Your task to perform on an android device: change notifications settings Image 0: 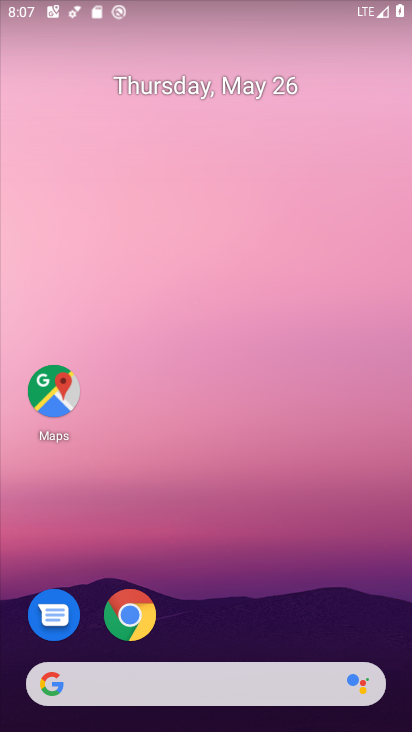
Step 0: drag from (260, 499) to (301, 95)
Your task to perform on an android device: change notifications settings Image 1: 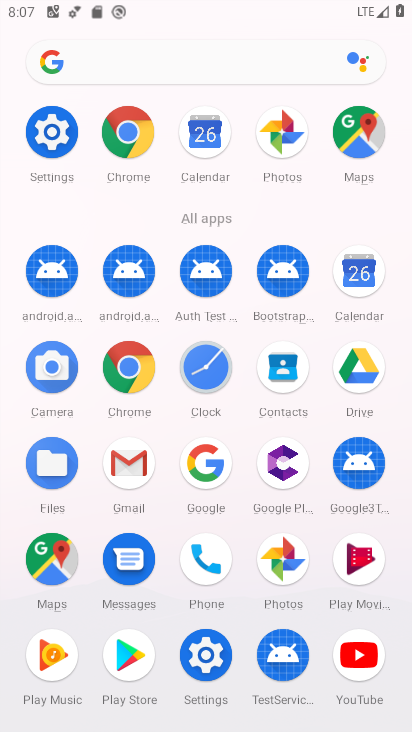
Step 1: click (48, 128)
Your task to perform on an android device: change notifications settings Image 2: 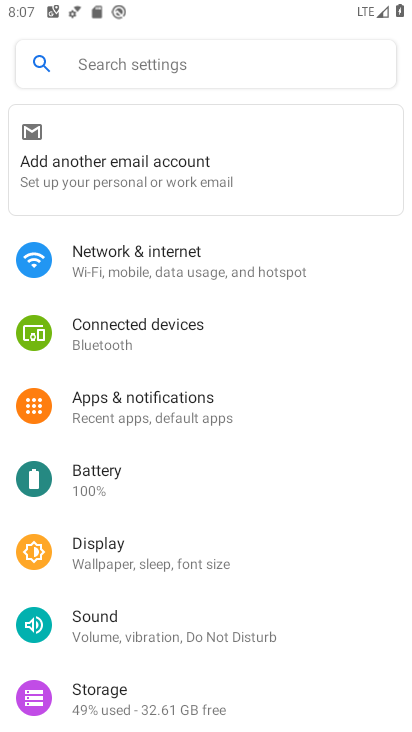
Step 2: click (141, 394)
Your task to perform on an android device: change notifications settings Image 3: 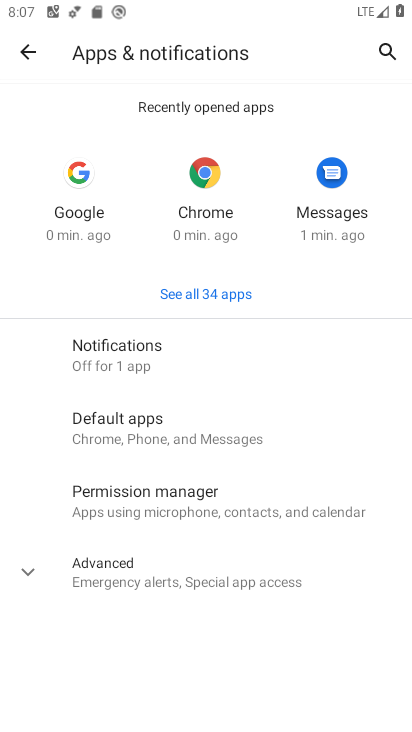
Step 3: click (147, 335)
Your task to perform on an android device: change notifications settings Image 4: 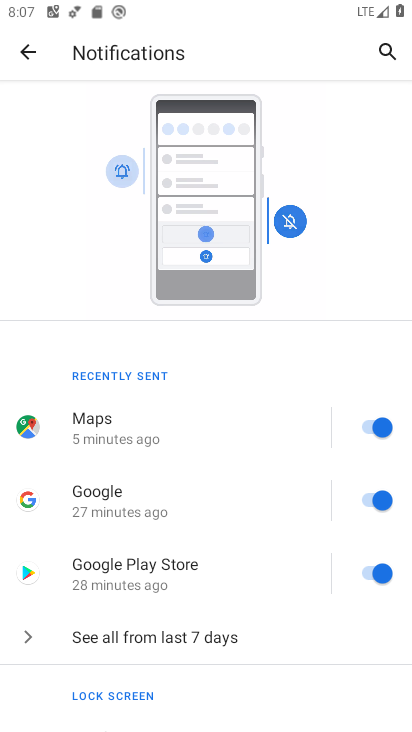
Step 4: drag from (187, 622) to (201, 438)
Your task to perform on an android device: change notifications settings Image 5: 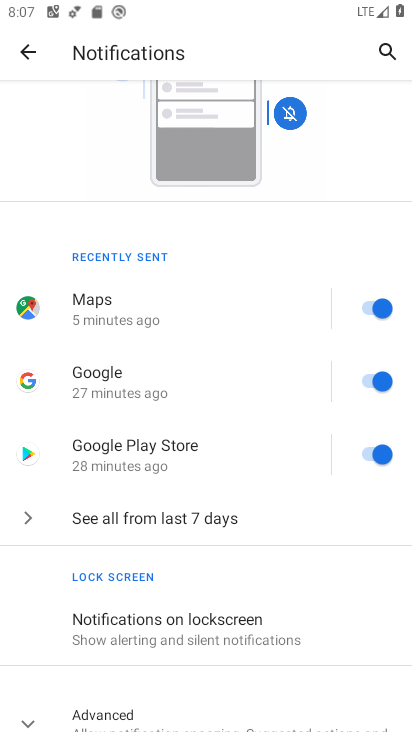
Step 5: click (193, 622)
Your task to perform on an android device: change notifications settings Image 6: 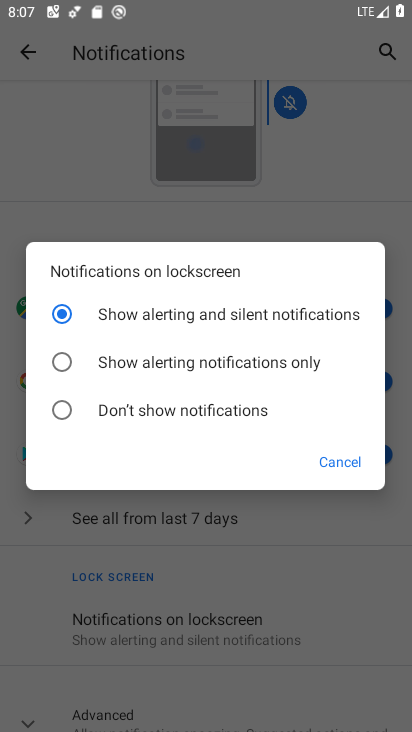
Step 6: click (348, 461)
Your task to perform on an android device: change notifications settings Image 7: 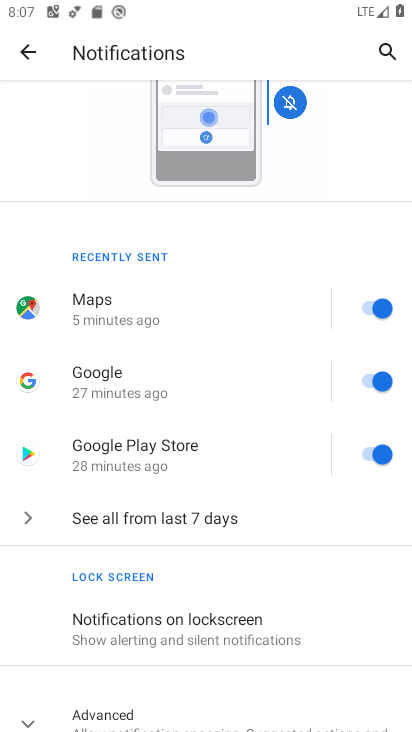
Step 7: click (239, 523)
Your task to perform on an android device: change notifications settings Image 8: 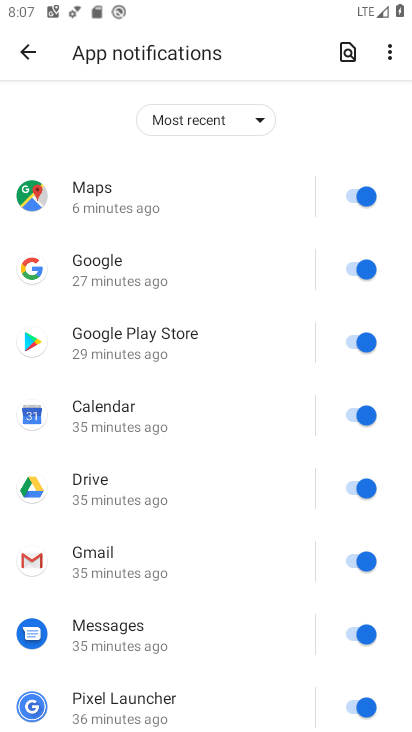
Step 8: drag from (184, 586) to (198, 517)
Your task to perform on an android device: change notifications settings Image 9: 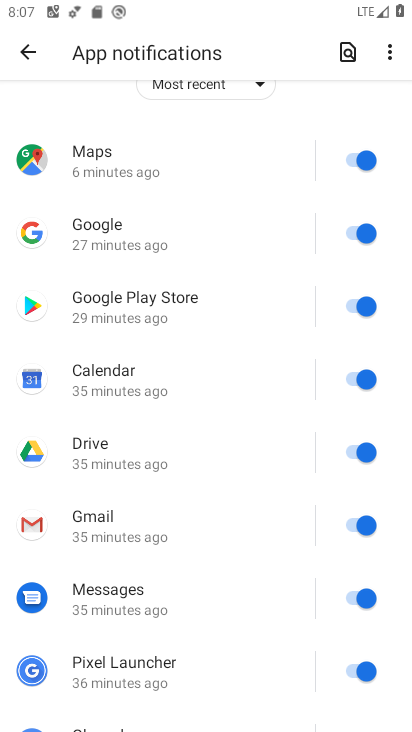
Step 9: click (347, 160)
Your task to perform on an android device: change notifications settings Image 10: 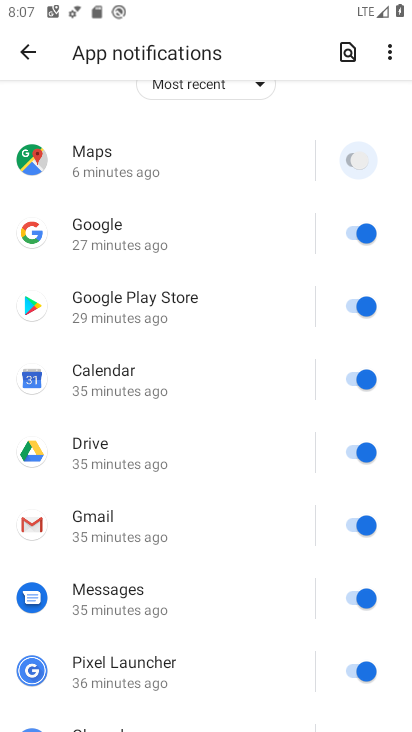
Step 10: click (356, 241)
Your task to perform on an android device: change notifications settings Image 11: 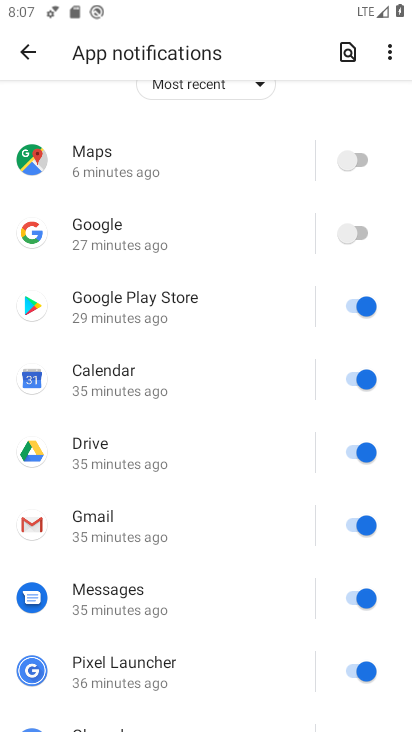
Step 11: click (355, 296)
Your task to perform on an android device: change notifications settings Image 12: 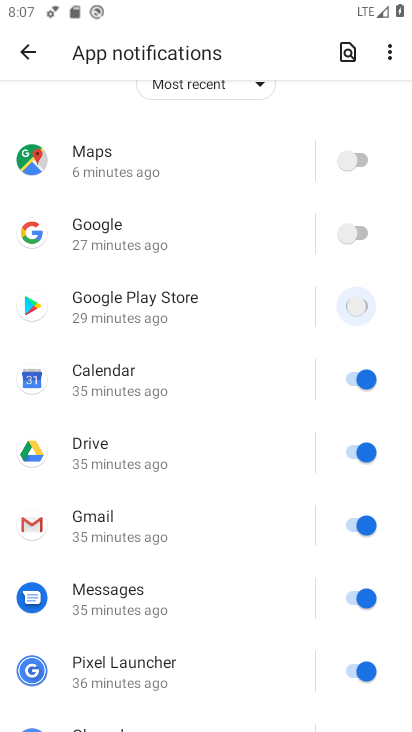
Step 12: click (357, 379)
Your task to perform on an android device: change notifications settings Image 13: 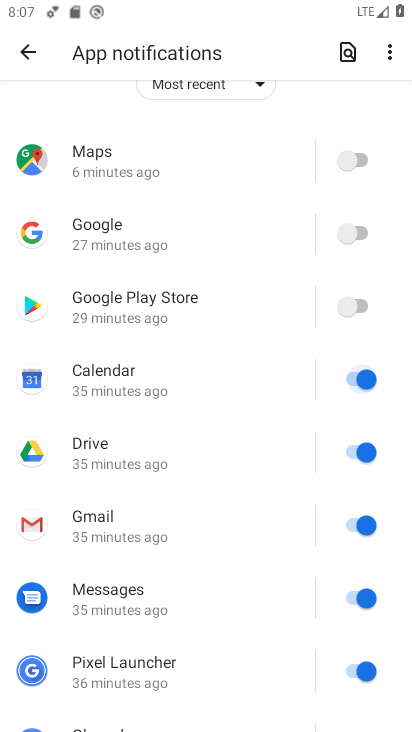
Step 13: click (357, 446)
Your task to perform on an android device: change notifications settings Image 14: 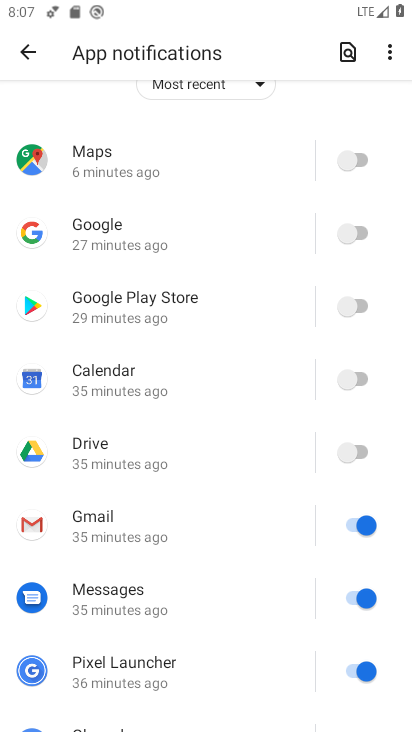
Step 14: click (347, 532)
Your task to perform on an android device: change notifications settings Image 15: 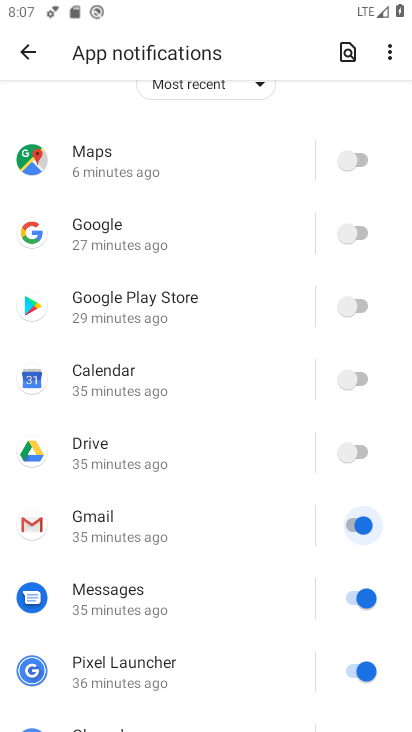
Step 15: click (359, 589)
Your task to perform on an android device: change notifications settings Image 16: 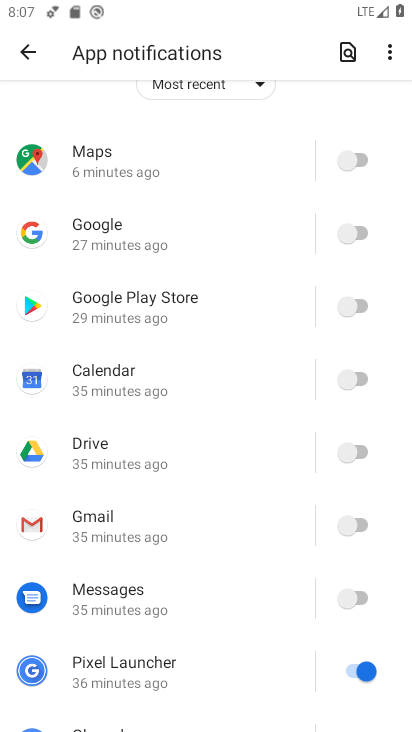
Step 16: click (341, 663)
Your task to perform on an android device: change notifications settings Image 17: 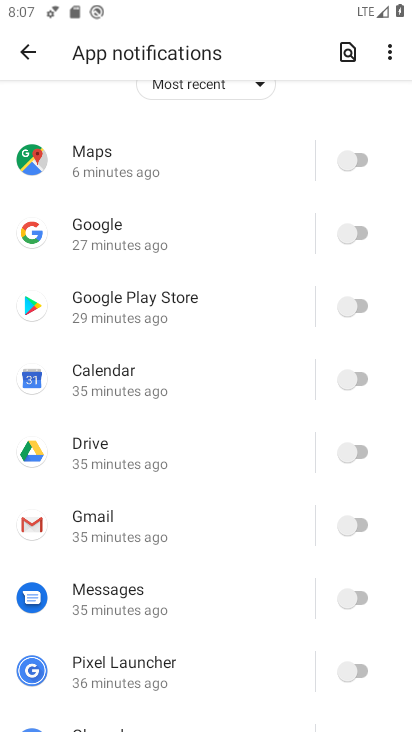
Step 17: drag from (252, 625) to (270, 192)
Your task to perform on an android device: change notifications settings Image 18: 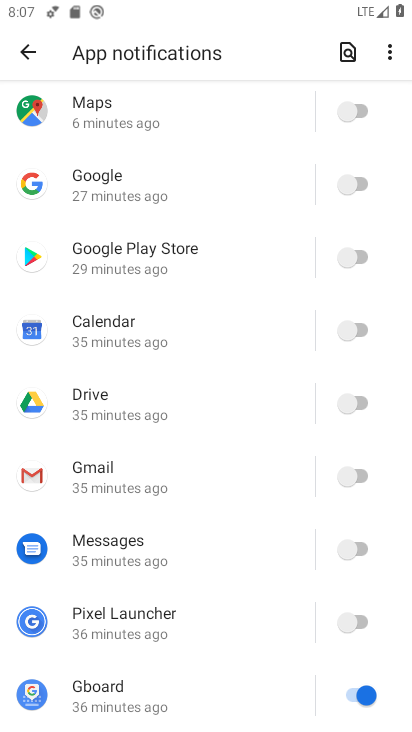
Step 18: click (354, 697)
Your task to perform on an android device: change notifications settings Image 19: 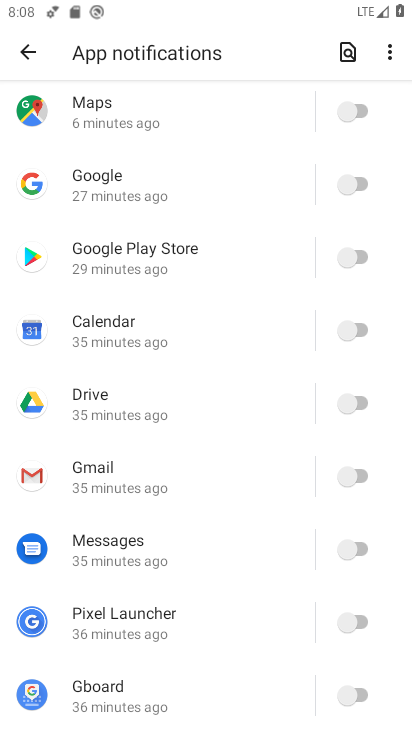
Step 19: task complete